Your task to perform on an android device: open device folders in google photos Image 0: 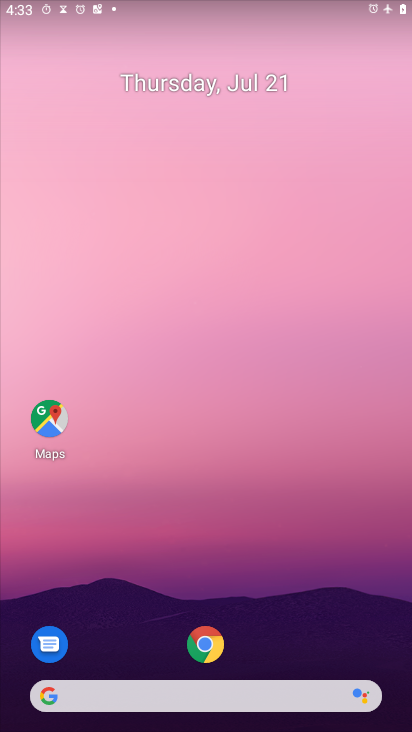
Step 0: press home button
Your task to perform on an android device: open device folders in google photos Image 1: 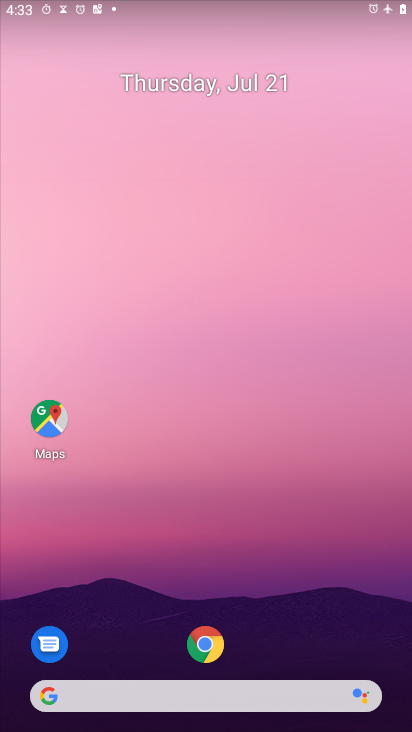
Step 1: drag from (278, 650) to (261, 23)
Your task to perform on an android device: open device folders in google photos Image 2: 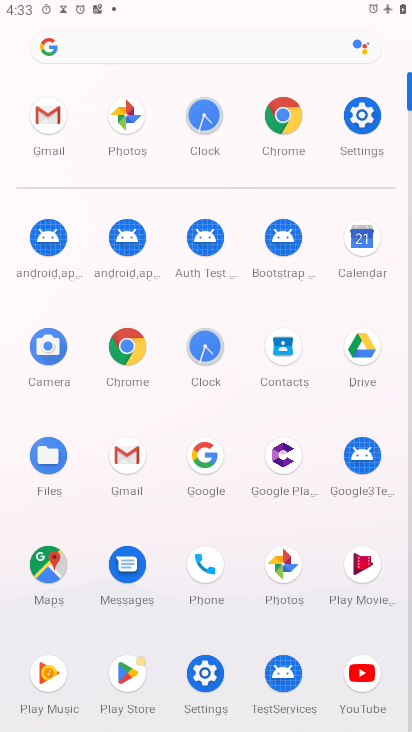
Step 2: click (275, 570)
Your task to perform on an android device: open device folders in google photos Image 3: 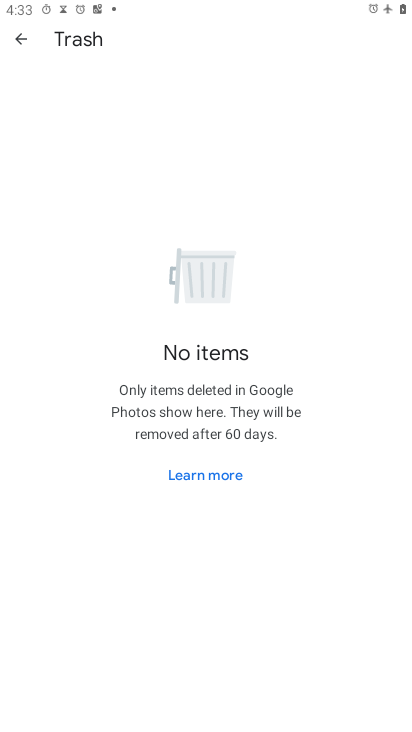
Step 3: click (22, 26)
Your task to perform on an android device: open device folders in google photos Image 4: 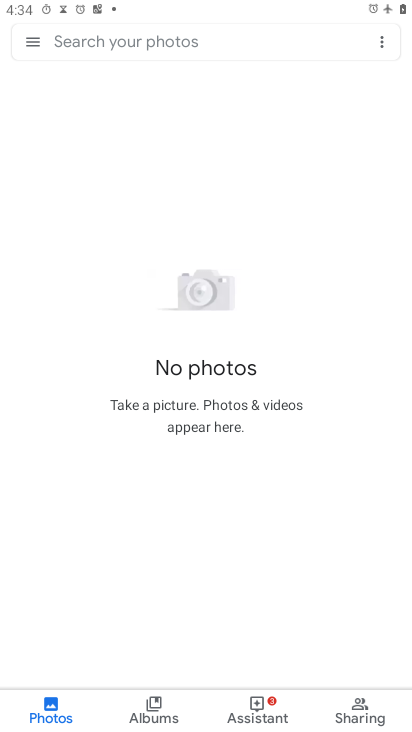
Step 4: click (29, 37)
Your task to perform on an android device: open device folders in google photos Image 5: 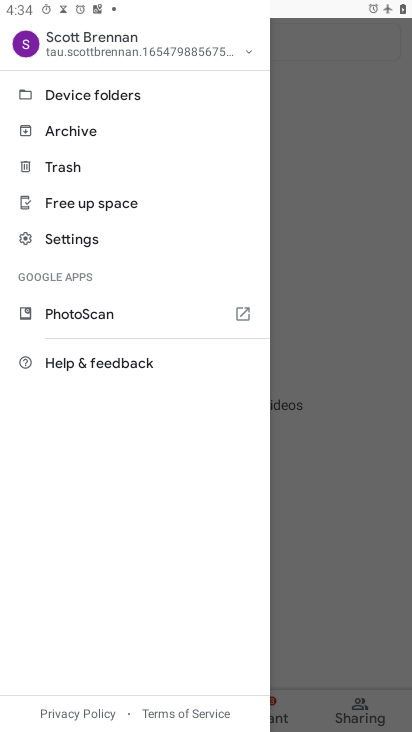
Step 5: click (84, 96)
Your task to perform on an android device: open device folders in google photos Image 6: 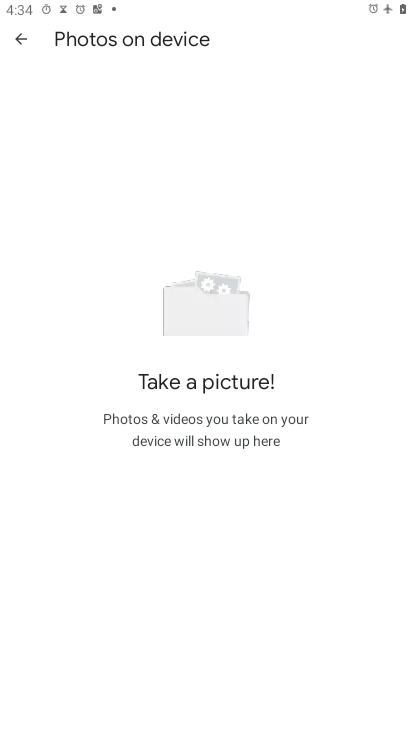
Step 6: task complete